Your task to perform on an android device: Go to Amazon Image 0: 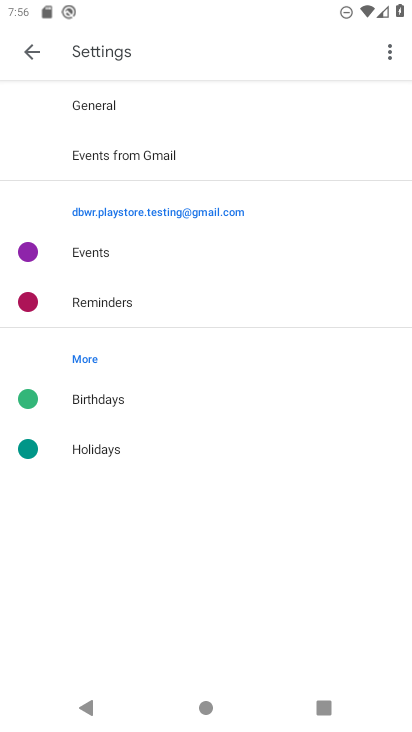
Step 0: press back button
Your task to perform on an android device: Go to Amazon Image 1: 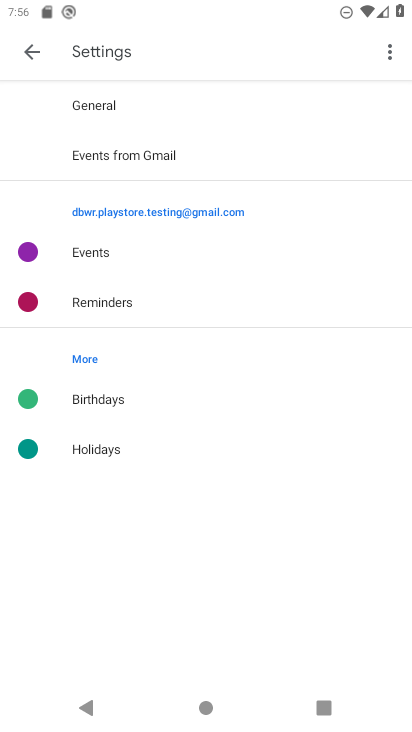
Step 1: press home button
Your task to perform on an android device: Go to Amazon Image 2: 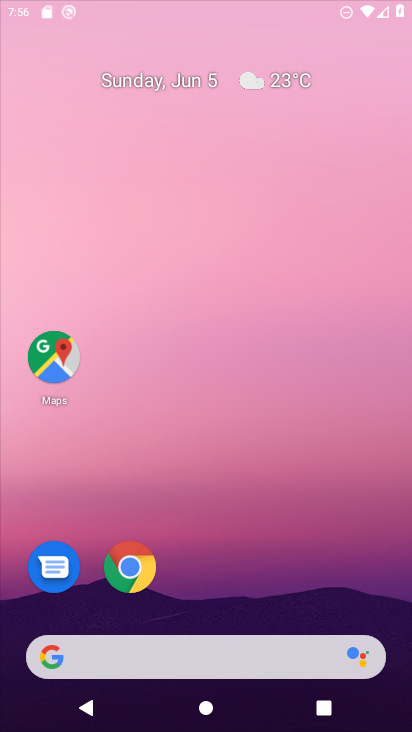
Step 2: drag from (364, 499) to (221, 61)
Your task to perform on an android device: Go to Amazon Image 3: 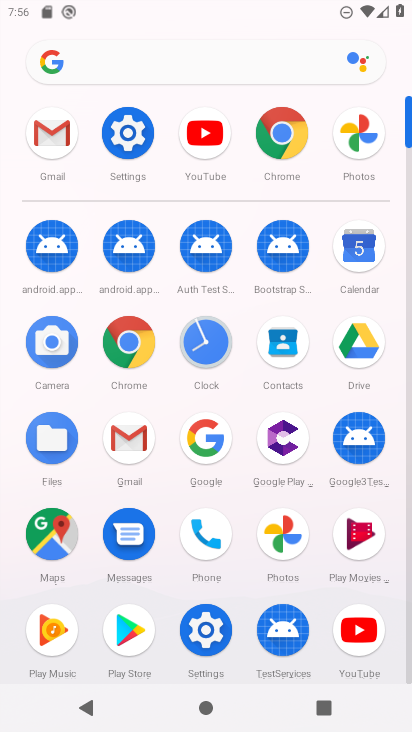
Step 3: click (206, 427)
Your task to perform on an android device: Go to Amazon Image 4: 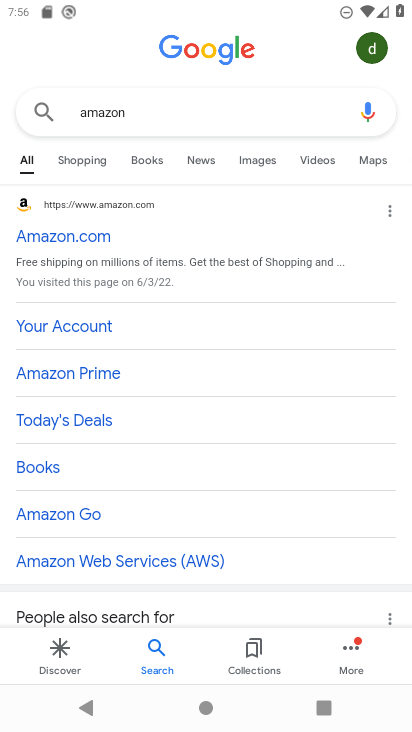
Step 4: task complete